Your task to perform on an android device: set the timer Image 0: 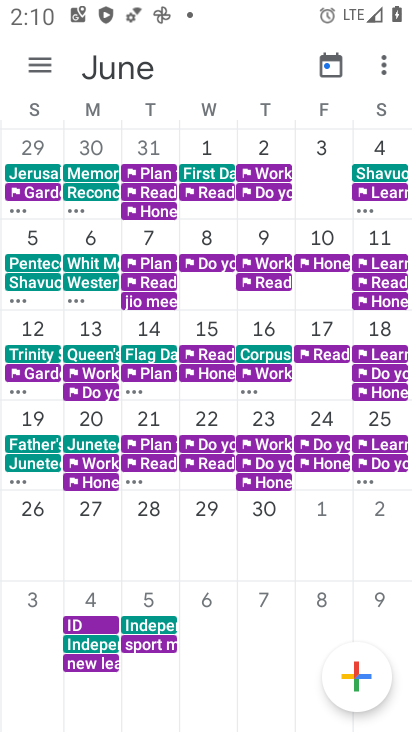
Step 0: press home button
Your task to perform on an android device: set the timer Image 1: 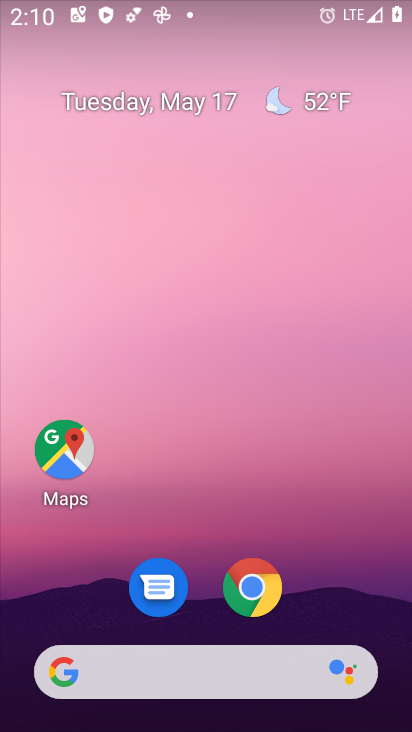
Step 1: drag from (375, 593) to (196, 60)
Your task to perform on an android device: set the timer Image 2: 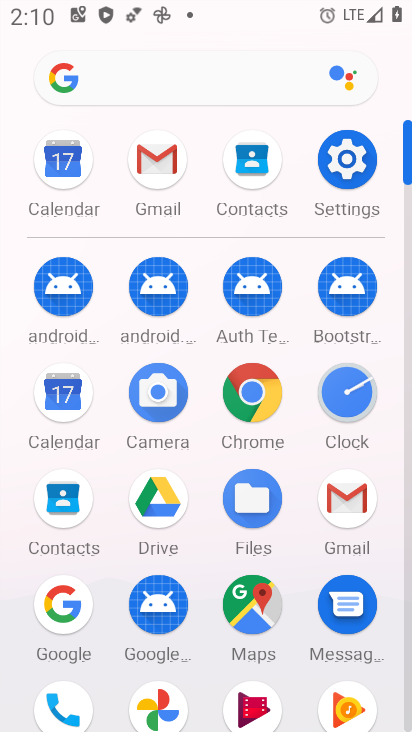
Step 2: click (334, 399)
Your task to perform on an android device: set the timer Image 3: 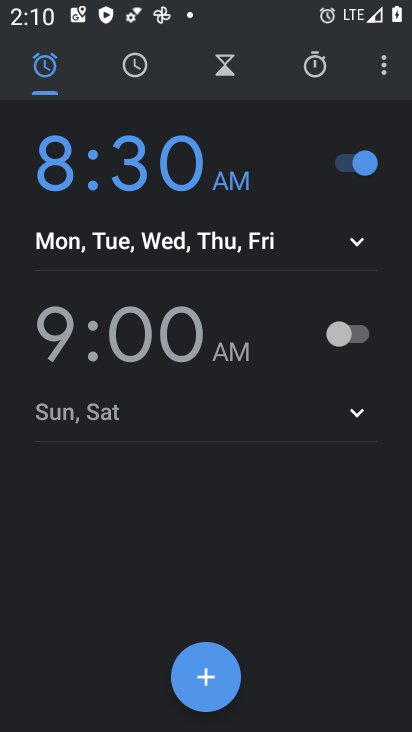
Step 3: click (237, 60)
Your task to perform on an android device: set the timer Image 4: 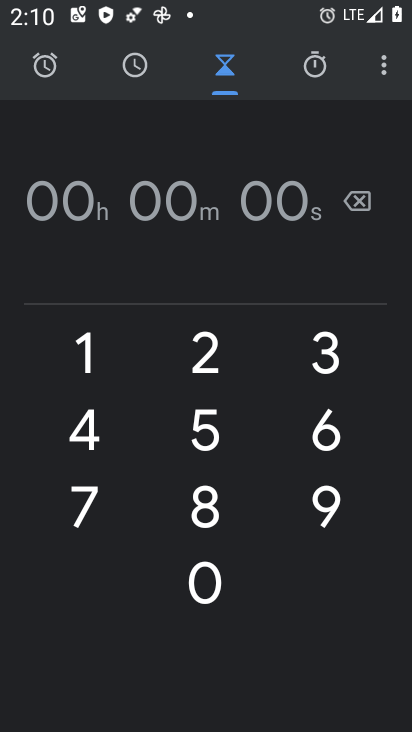
Step 4: task complete